Your task to perform on an android device: show emergency info Image 0: 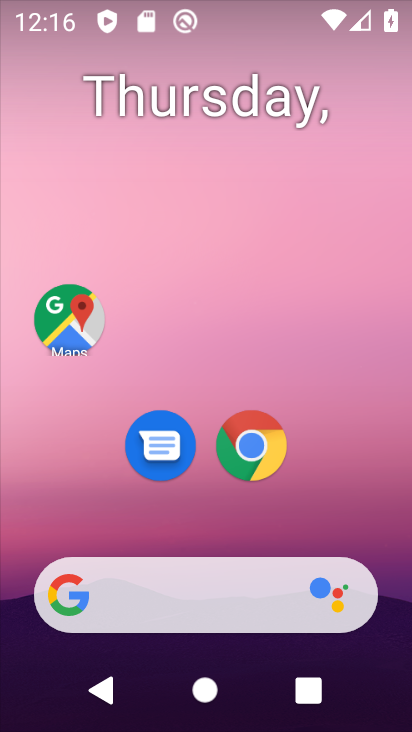
Step 0: drag from (315, 501) to (252, 132)
Your task to perform on an android device: show emergency info Image 1: 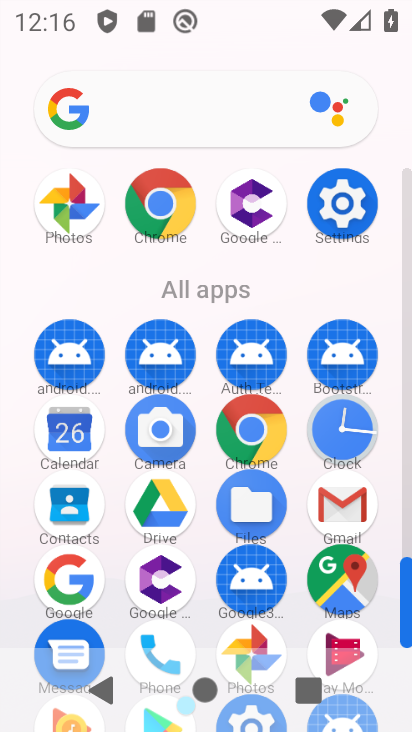
Step 1: click (357, 202)
Your task to perform on an android device: show emergency info Image 2: 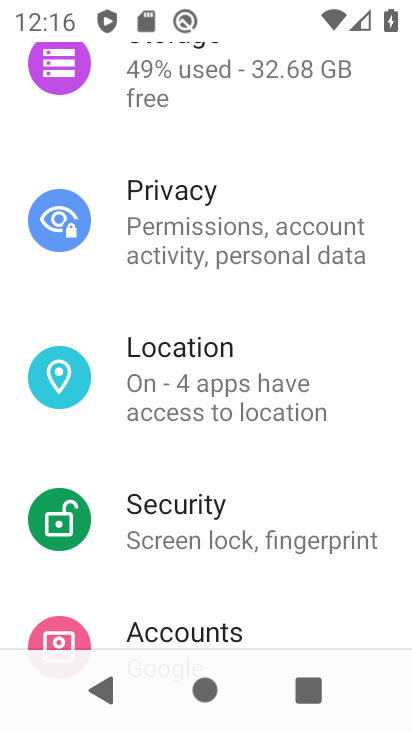
Step 2: drag from (317, 608) to (316, 262)
Your task to perform on an android device: show emergency info Image 3: 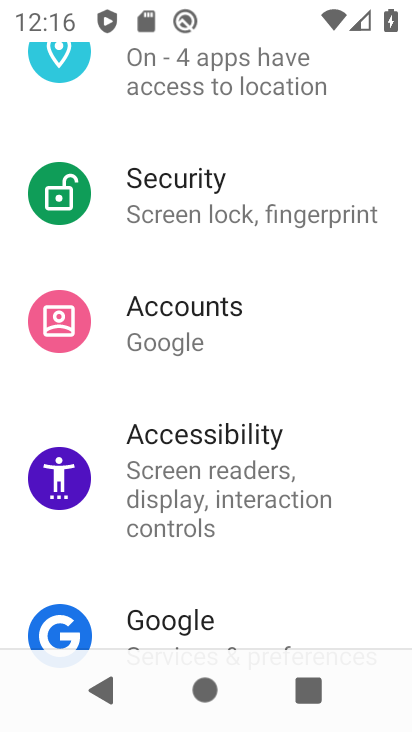
Step 3: drag from (287, 569) to (273, 109)
Your task to perform on an android device: show emergency info Image 4: 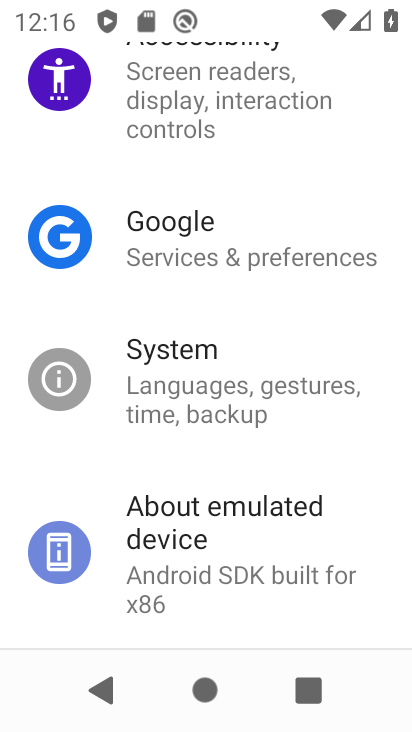
Step 4: click (239, 560)
Your task to perform on an android device: show emergency info Image 5: 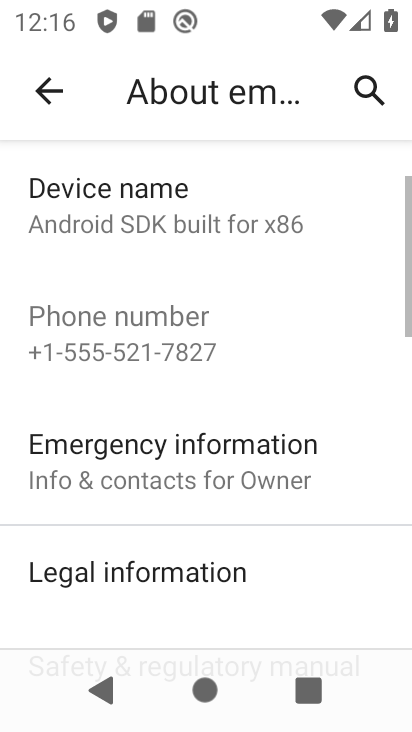
Step 5: click (205, 454)
Your task to perform on an android device: show emergency info Image 6: 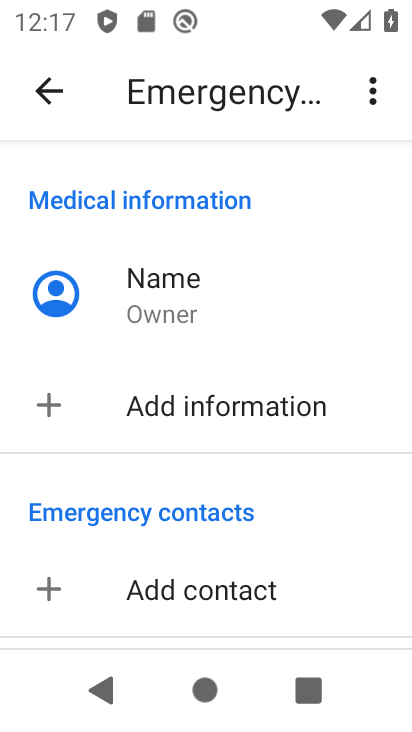
Step 6: task complete